Your task to perform on an android device: change timer sound Image 0: 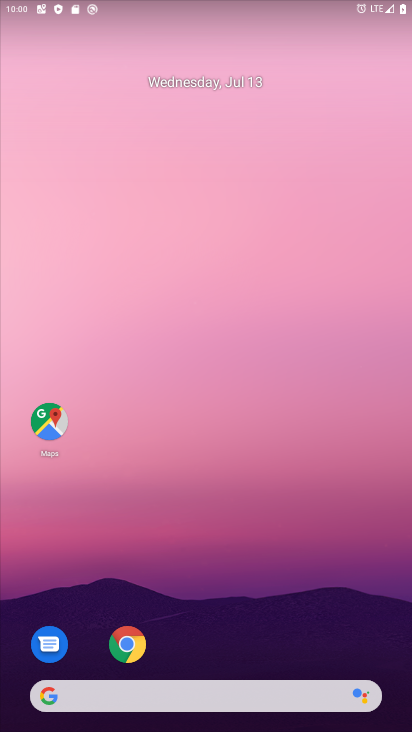
Step 0: drag from (225, 717) to (216, 67)
Your task to perform on an android device: change timer sound Image 1: 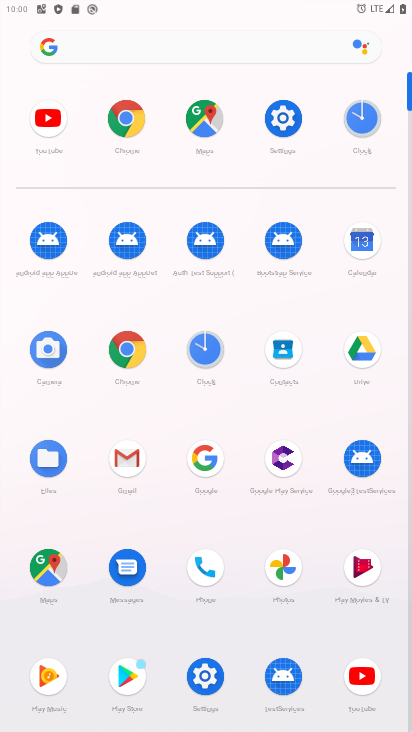
Step 1: click (208, 343)
Your task to perform on an android device: change timer sound Image 2: 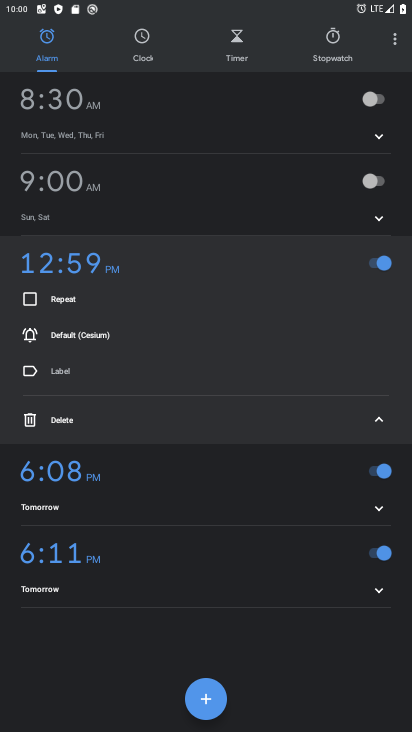
Step 2: click (397, 44)
Your task to perform on an android device: change timer sound Image 3: 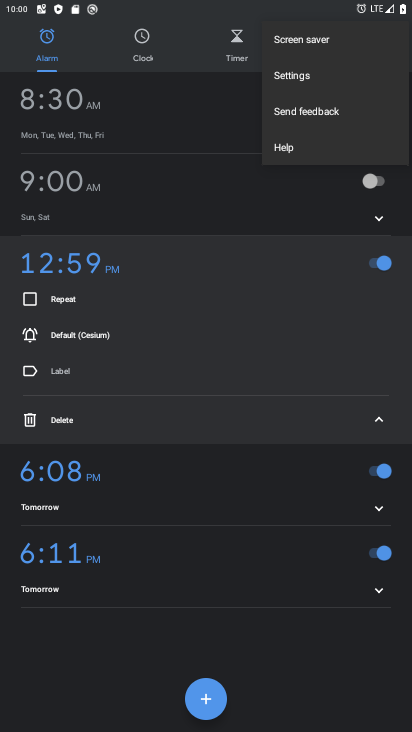
Step 3: click (284, 72)
Your task to perform on an android device: change timer sound Image 4: 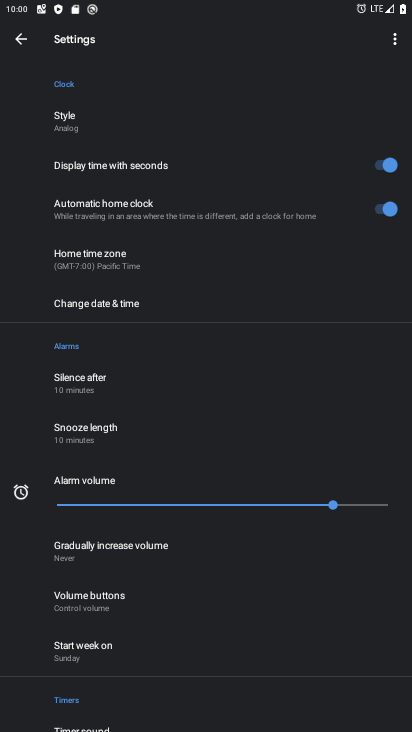
Step 4: drag from (115, 713) to (115, 658)
Your task to perform on an android device: change timer sound Image 5: 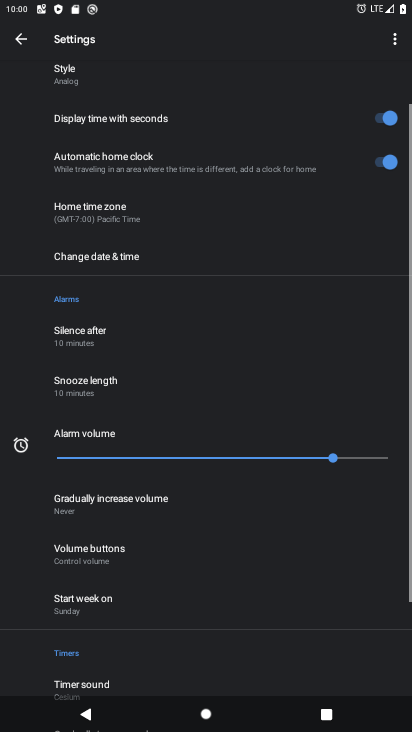
Step 5: drag from (118, 383) to (118, 317)
Your task to perform on an android device: change timer sound Image 6: 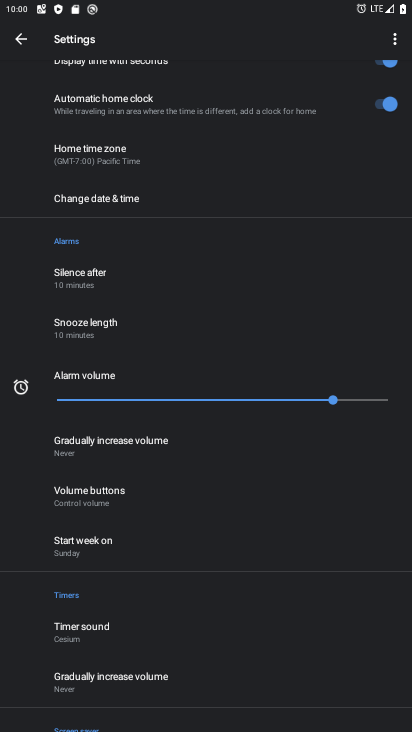
Step 6: click (77, 624)
Your task to perform on an android device: change timer sound Image 7: 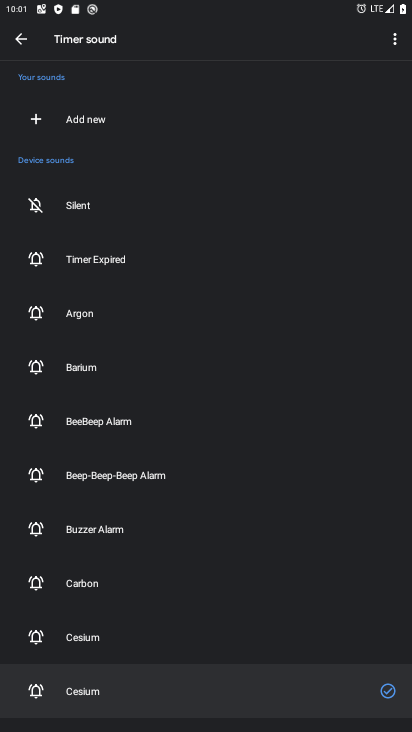
Step 7: click (72, 576)
Your task to perform on an android device: change timer sound Image 8: 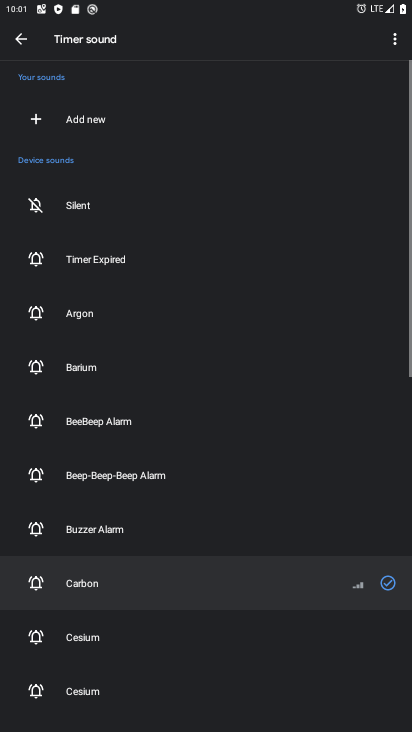
Step 8: task complete